Your task to perform on an android device: open a new tab in the chrome app Image 0: 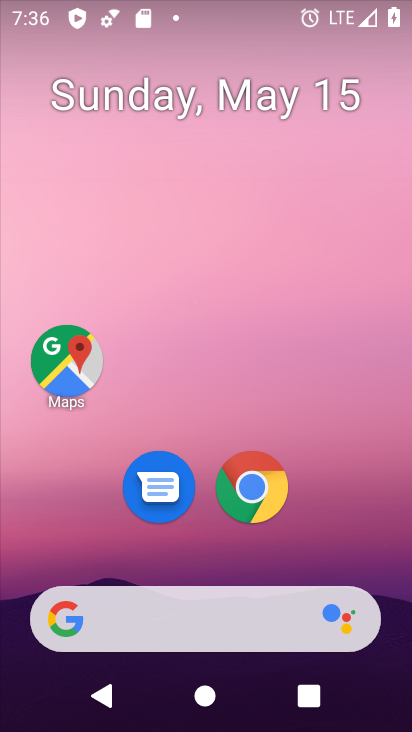
Step 0: drag from (358, 521) to (368, 160)
Your task to perform on an android device: open a new tab in the chrome app Image 1: 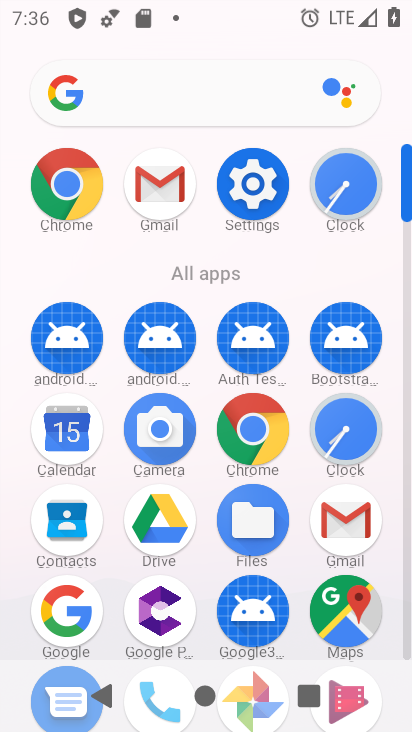
Step 1: click (255, 446)
Your task to perform on an android device: open a new tab in the chrome app Image 2: 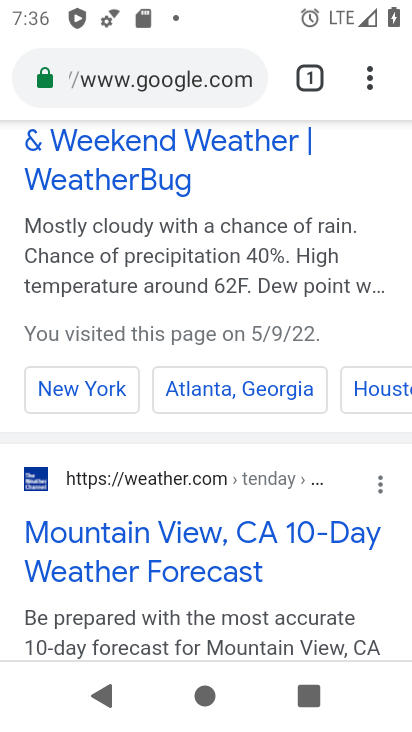
Step 2: click (304, 89)
Your task to perform on an android device: open a new tab in the chrome app Image 3: 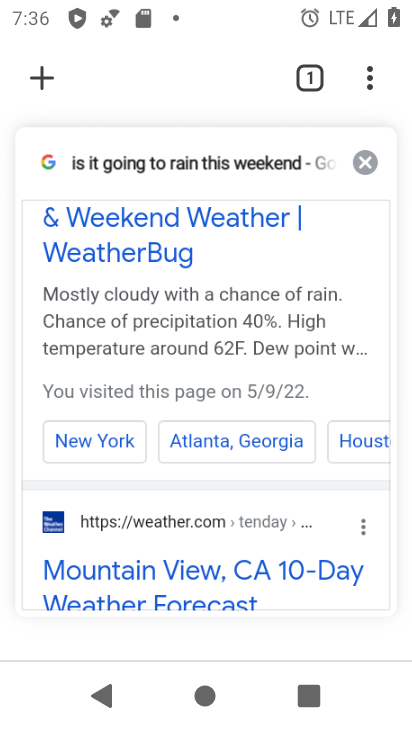
Step 3: click (48, 86)
Your task to perform on an android device: open a new tab in the chrome app Image 4: 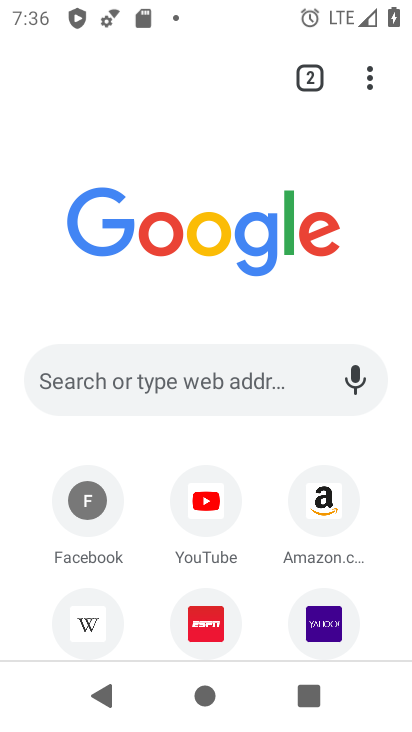
Step 4: task complete